Your task to perform on an android device: Is it going to rain this weekend? Image 0: 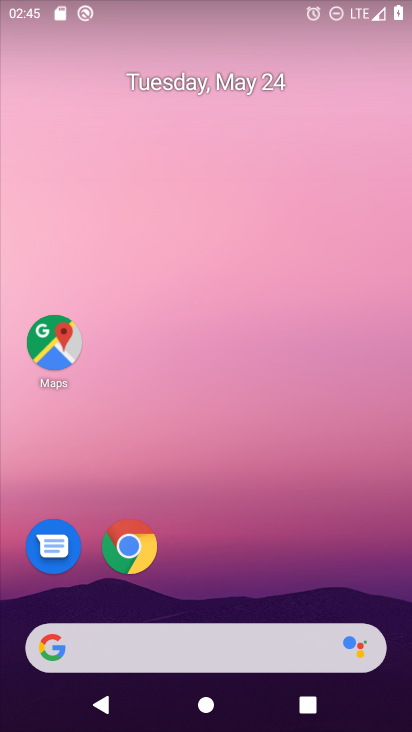
Step 0: drag from (261, 520) to (266, 2)
Your task to perform on an android device: Is it going to rain this weekend? Image 1: 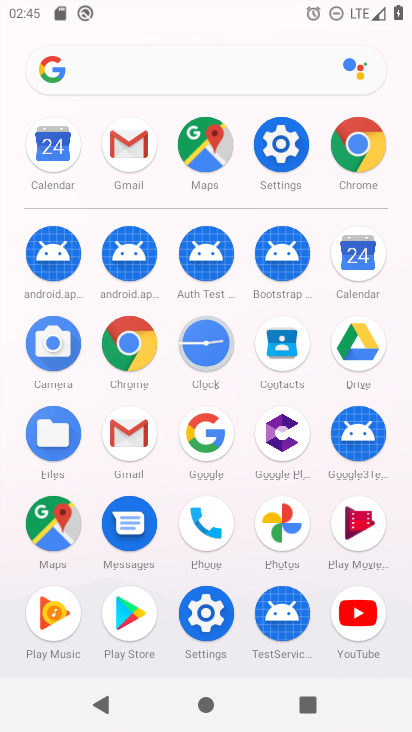
Step 1: press home button
Your task to perform on an android device: Is it going to rain this weekend? Image 2: 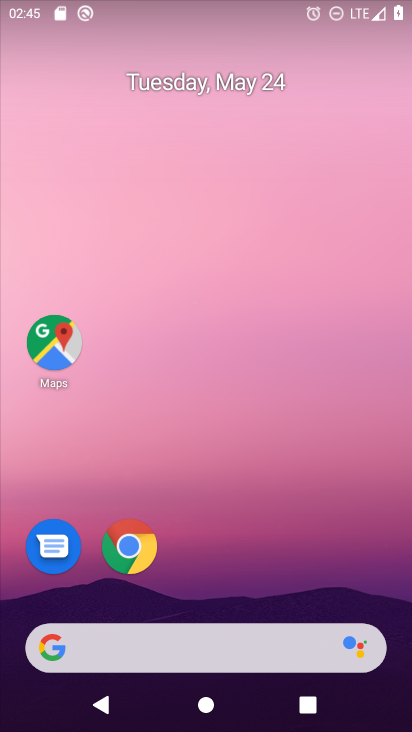
Step 2: drag from (58, 239) to (335, 235)
Your task to perform on an android device: Is it going to rain this weekend? Image 3: 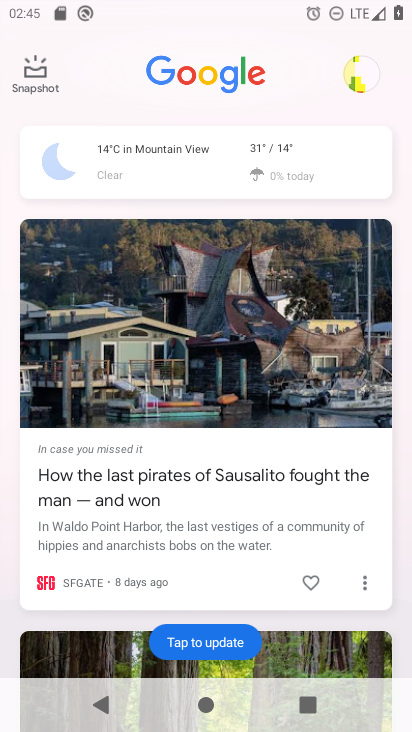
Step 3: click (222, 159)
Your task to perform on an android device: Is it going to rain this weekend? Image 4: 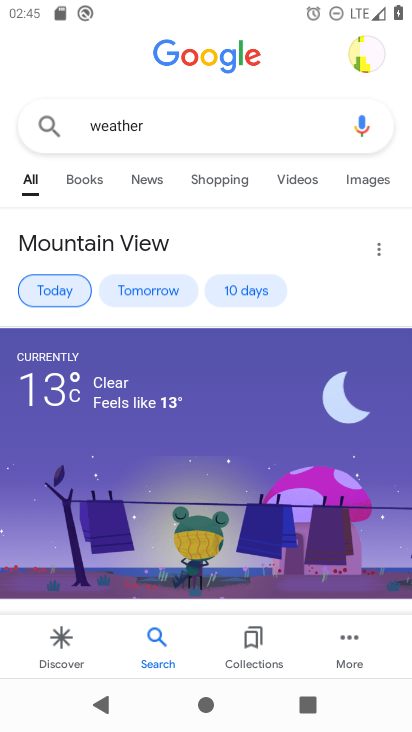
Step 4: click (234, 285)
Your task to perform on an android device: Is it going to rain this weekend? Image 5: 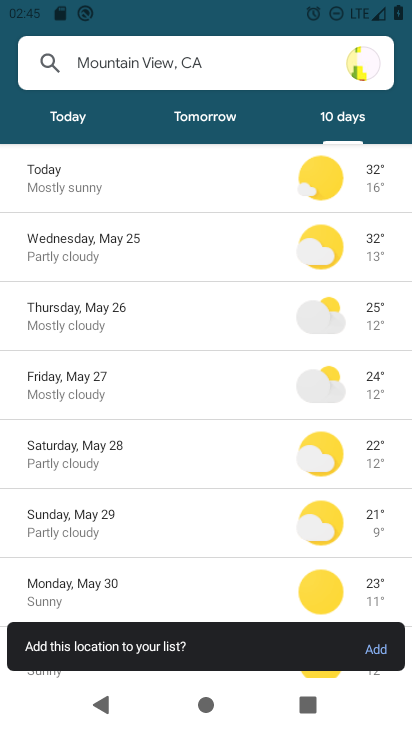
Step 5: task complete